Your task to perform on an android device: toggle improve location accuracy Image 0: 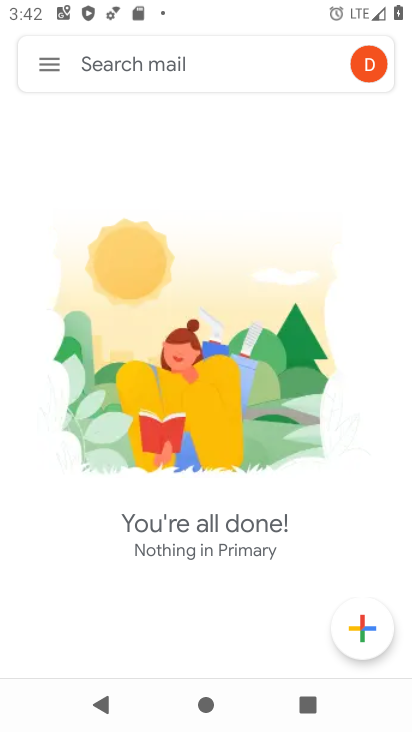
Step 0: press back button
Your task to perform on an android device: toggle improve location accuracy Image 1: 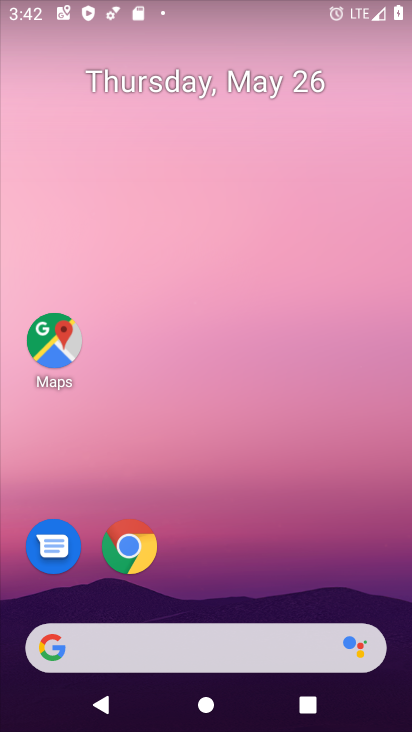
Step 1: drag from (304, 548) to (319, 31)
Your task to perform on an android device: toggle improve location accuracy Image 2: 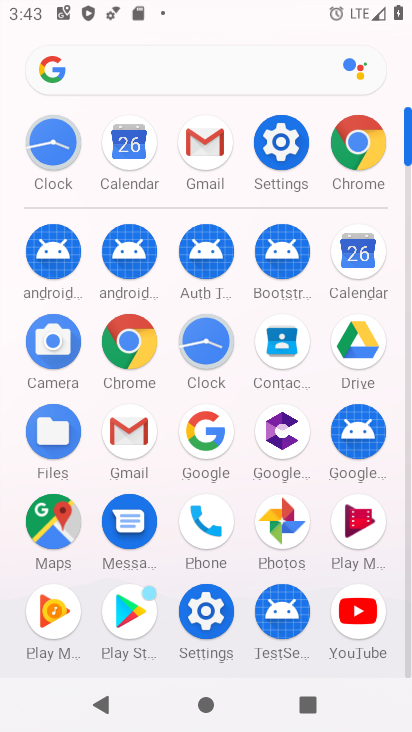
Step 2: click (278, 150)
Your task to perform on an android device: toggle improve location accuracy Image 3: 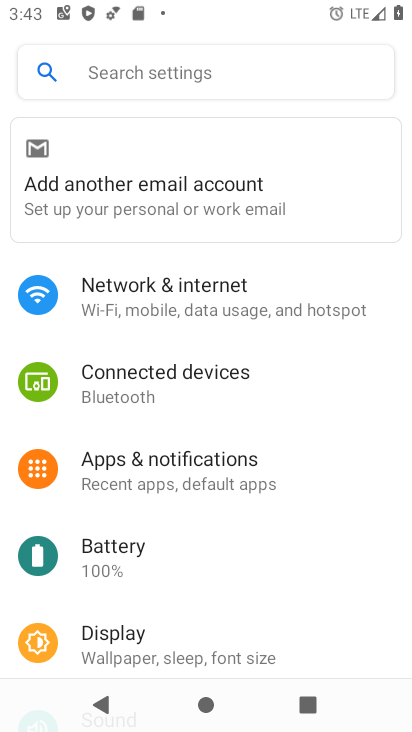
Step 3: drag from (199, 587) to (277, 122)
Your task to perform on an android device: toggle improve location accuracy Image 4: 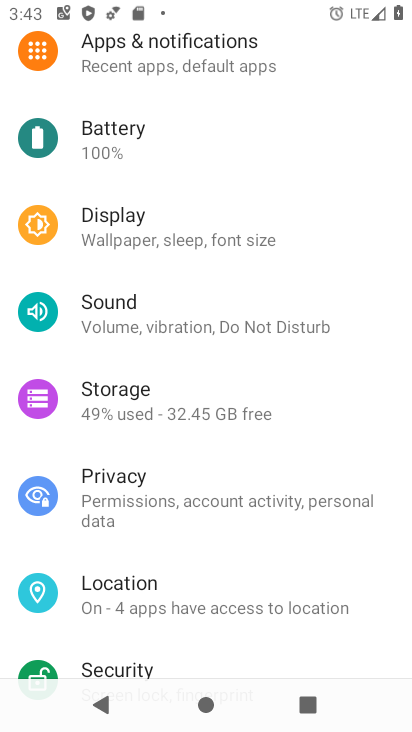
Step 4: click (144, 597)
Your task to perform on an android device: toggle improve location accuracy Image 5: 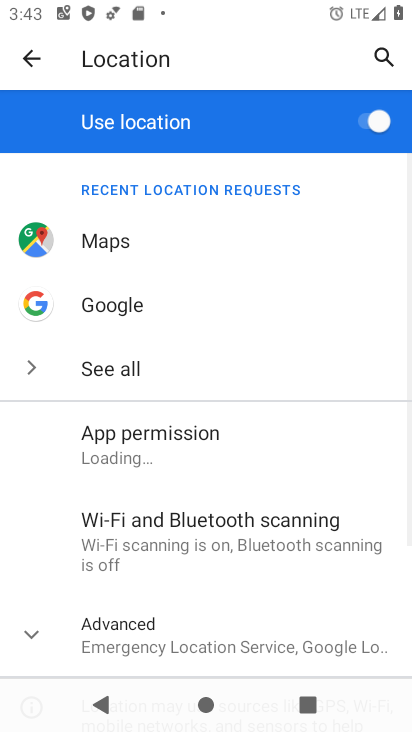
Step 5: drag from (156, 597) to (226, 149)
Your task to perform on an android device: toggle improve location accuracy Image 6: 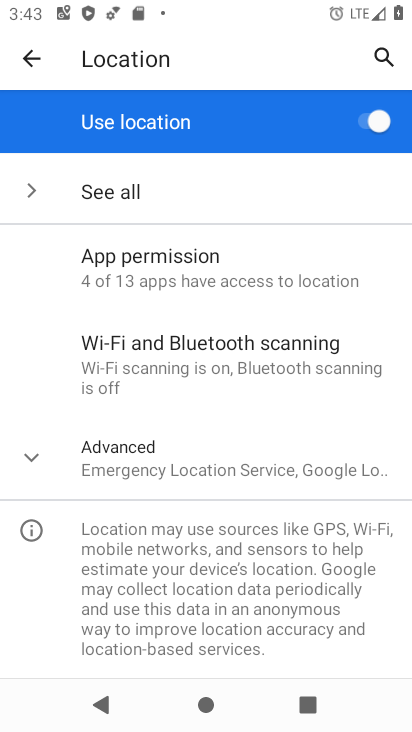
Step 6: click (156, 464)
Your task to perform on an android device: toggle improve location accuracy Image 7: 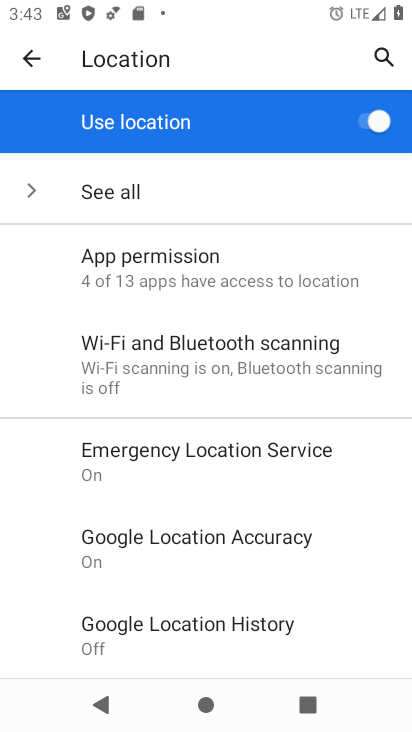
Step 7: click (264, 533)
Your task to perform on an android device: toggle improve location accuracy Image 8: 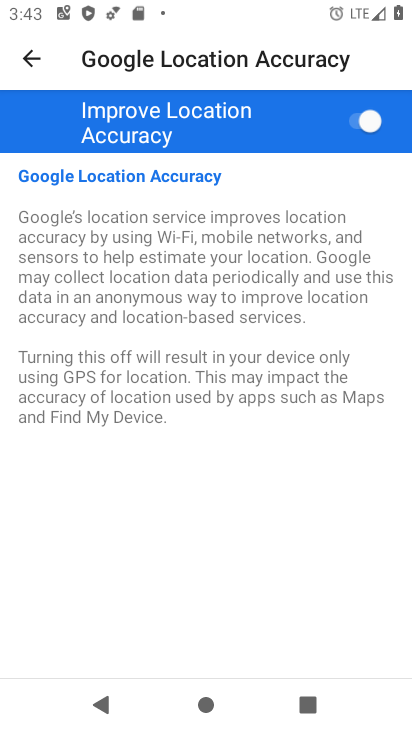
Step 8: click (365, 119)
Your task to perform on an android device: toggle improve location accuracy Image 9: 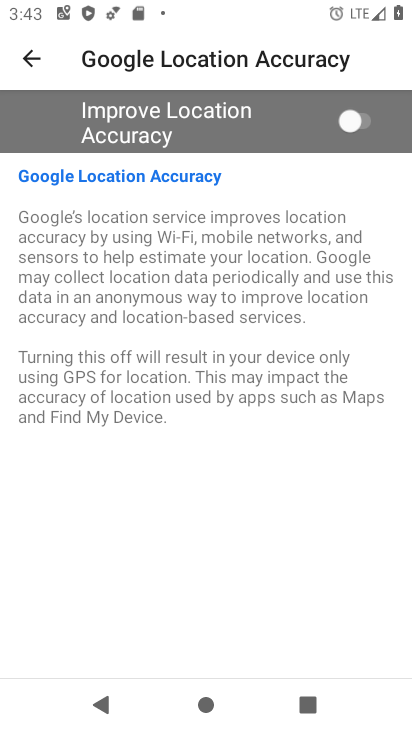
Step 9: task complete